Your task to perform on an android device: Go to Amazon Image 0: 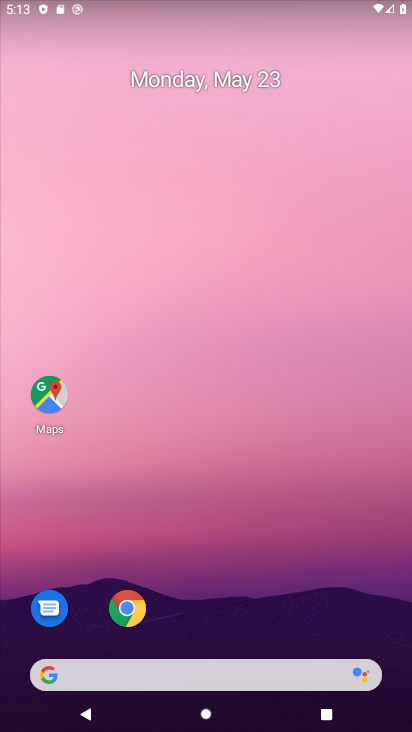
Step 0: press home button
Your task to perform on an android device: Go to Amazon Image 1: 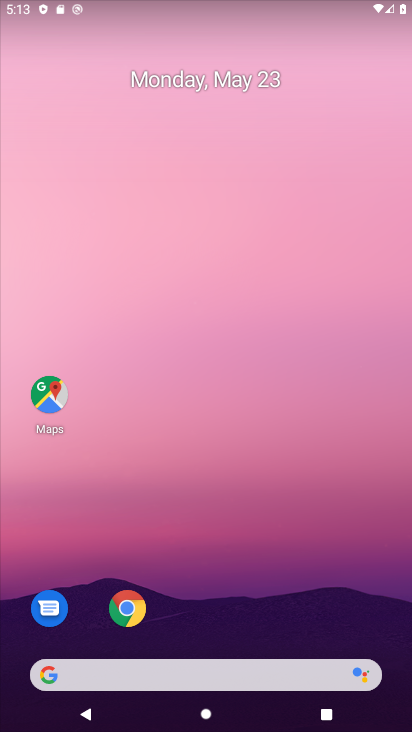
Step 1: click (121, 602)
Your task to perform on an android device: Go to Amazon Image 2: 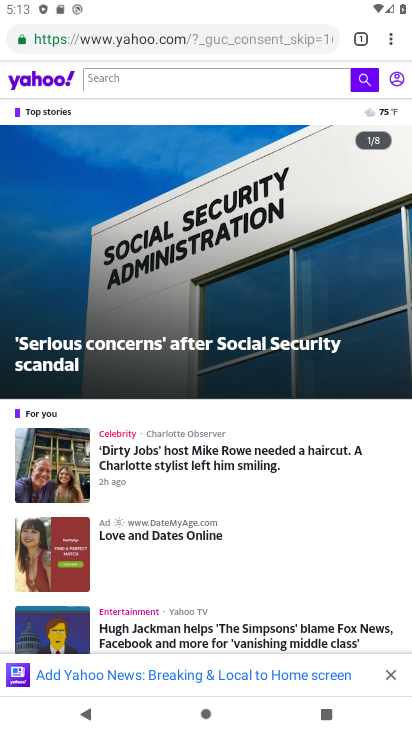
Step 2: click (360, 45)
Your task to perform on an android device: Go to Amazon Image 3: 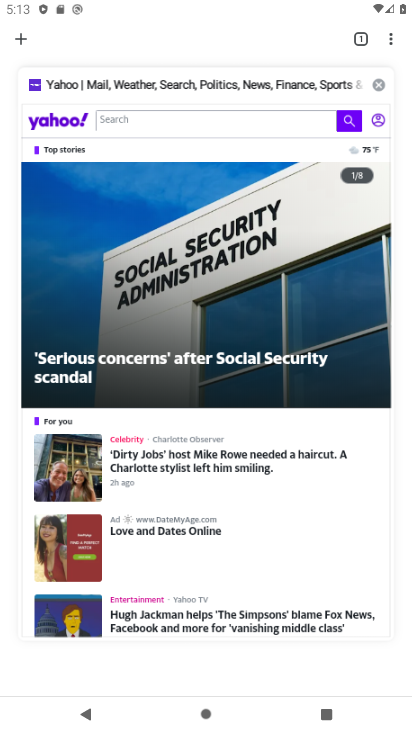
Step 3: click (372, 80)
Your task to perform on an android device: Go to Amazon Image 4: 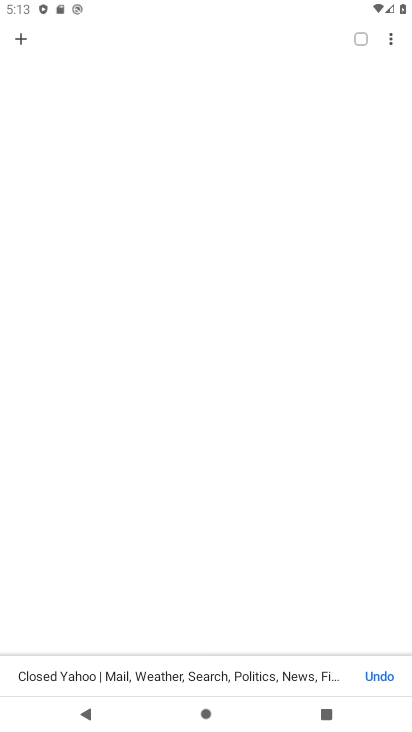
Step 4: click (22, 39)
Your task to perform on an android device: Go to Amazon Image 5: 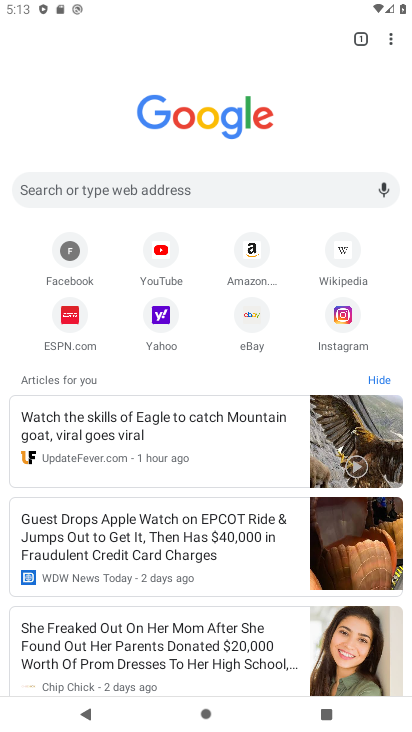
Step 5: click (253, 251)
Your task to perform on an android device: Go to Amazon Image 6: 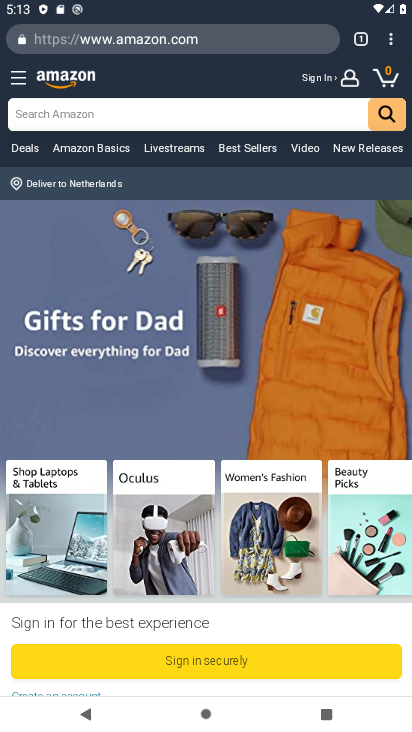
Step 6: task complete